Your task to perform on an android device: change the clock display to digital Image 0: 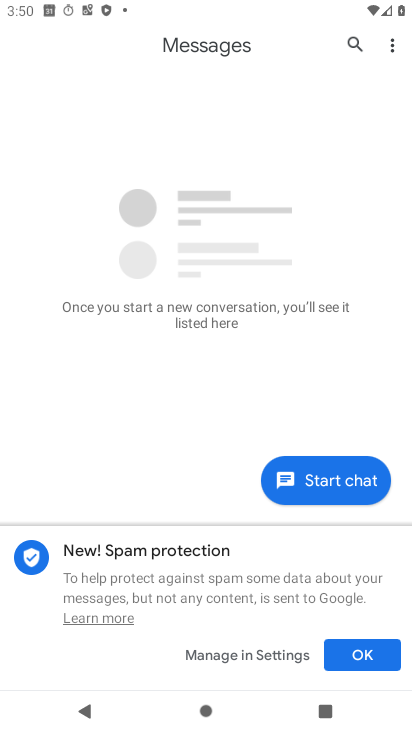
Step 0: press home button
Your task to perform on an android device: change the clock display to digital Image 1: 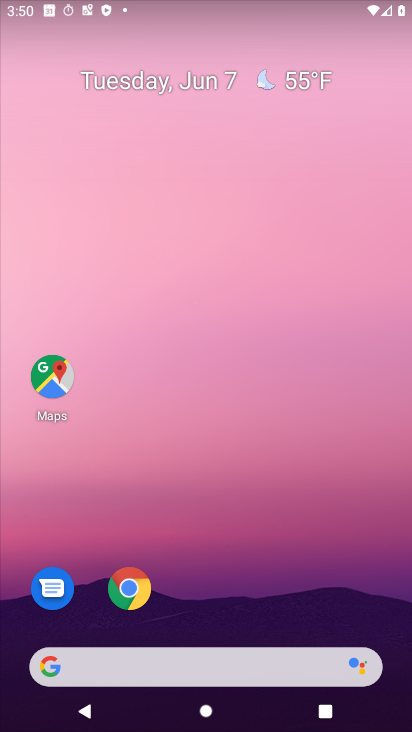
Step 1: drag from (214, 641) to (276, 157)
Your task to perform on an android device: change the clock display to digital Image 2: 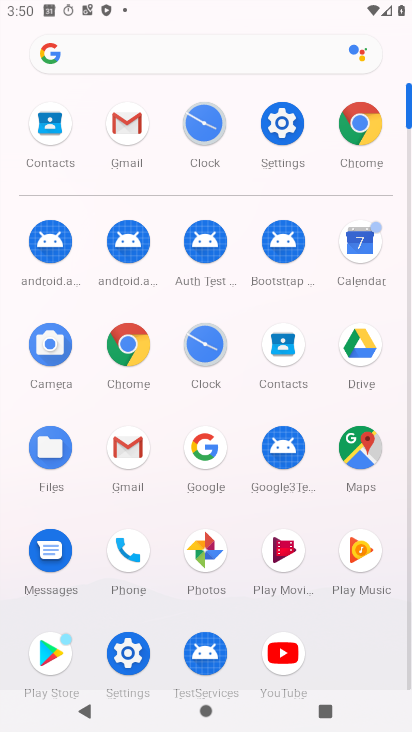
Step 2: click (201, 134)
Your task to perform on an android device: change the clock display to digital Image 3: 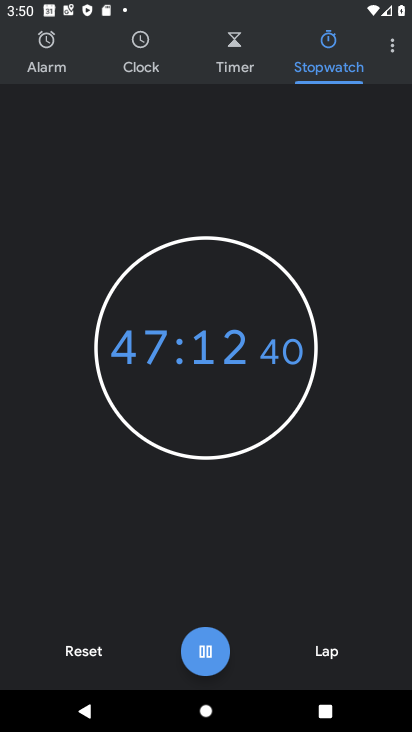
Step 3: click (393, 49)
Your task to perform on an android device: change the clock display to digital Image 4: 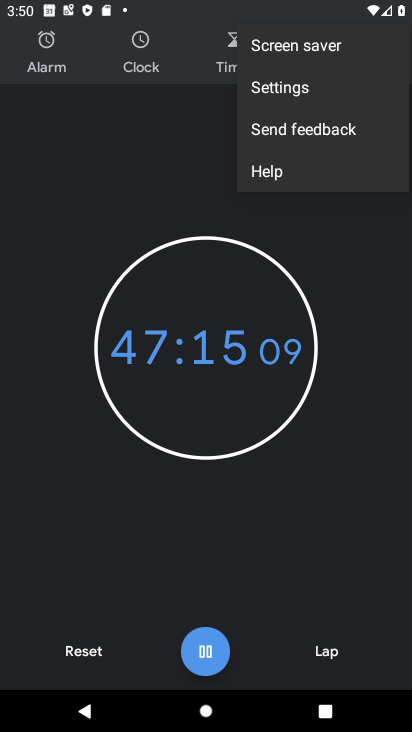
Step 4: click (284, 94)
Your task to perform on an android device: change the clock display to digital Image 5: 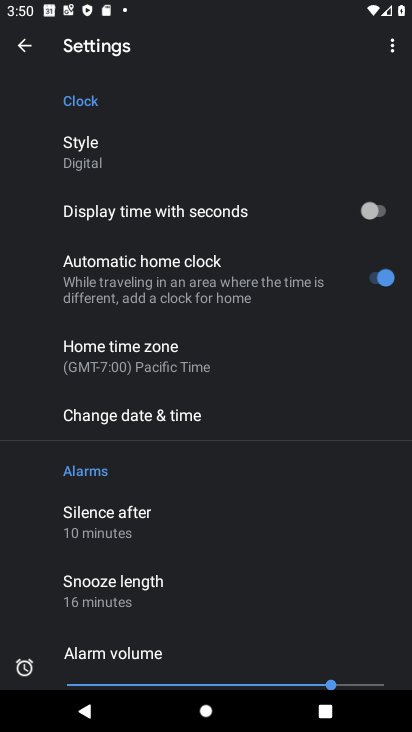
Step 5: task complete